Your task to perform on an android device: turn off improve location accuracy Image 0: 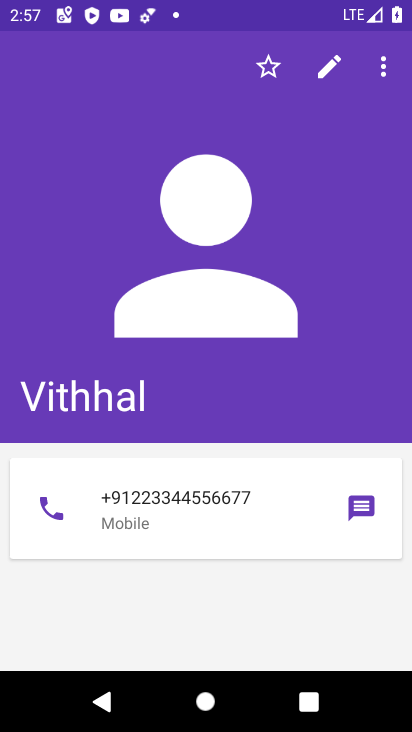
Step 0: press home button
Your task to perform on an android device: turn off improve location accuracy Image 1: 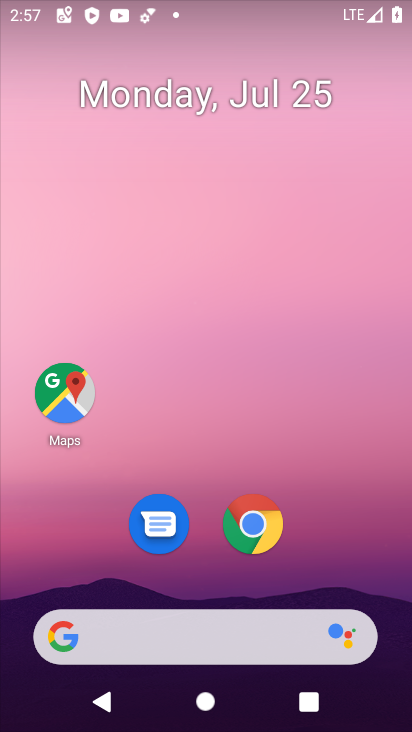
Step 1: drag from (341, 547) to (302, 54)
Your task to perform on an android device: turn off improve location accuracy Image 2: 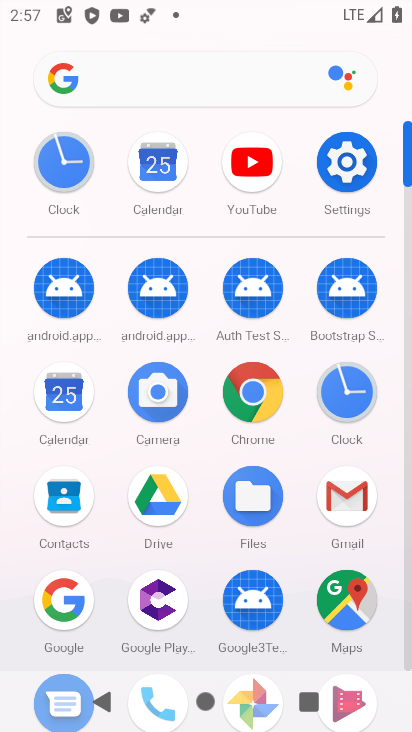
Step 2: click (343, 156)
Your task to perform on an android device: turn off improve location accuracy Image 3: 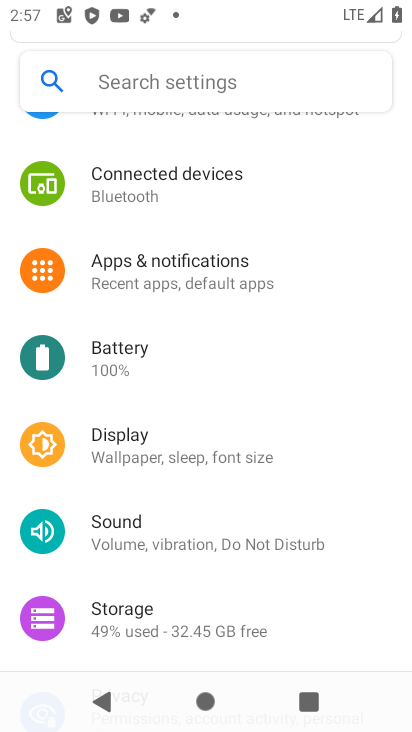
Step 3: drag from (235, 390) to (253, 34)
Your task to perform on an android device: turn off improve location accuracy Image 4: 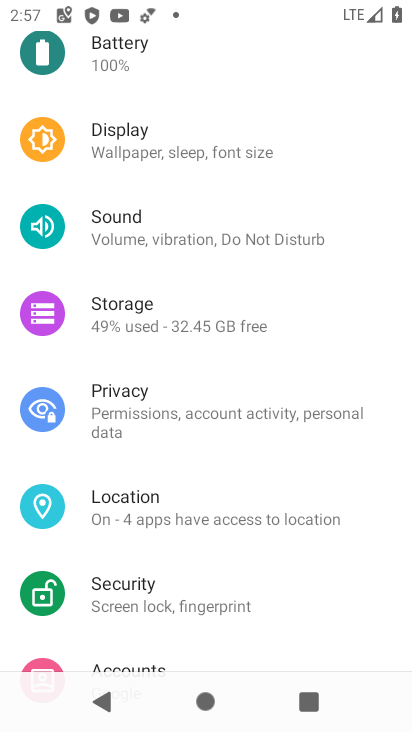
Step 4: click (206, 509)
Your task to perform on an android device: turn off improve location accuracy Image 5: 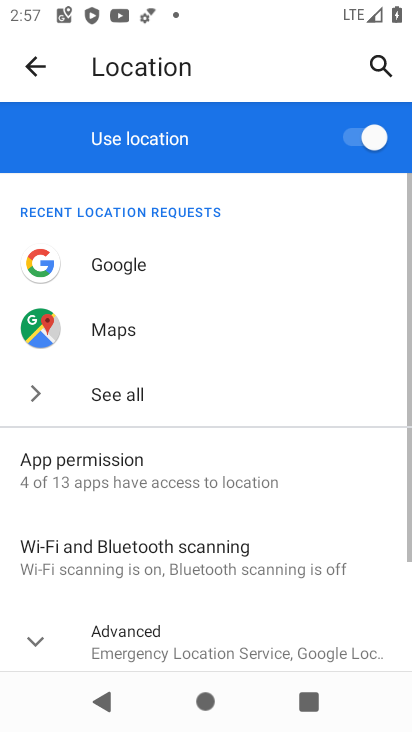
Step 5: click (31, 636)
Your task to perform on an android device: turn off improve location accuracy Image 6: 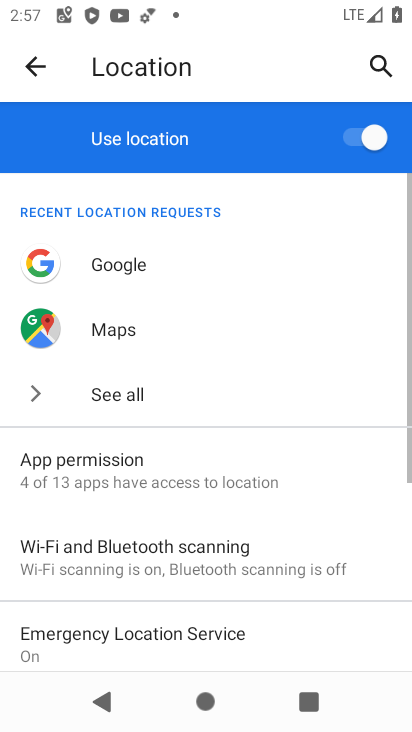
Step 6: drag from (218, 525) to (255, 242)
Your task to perform on an android device: turn off improve location accuracy Image 7: 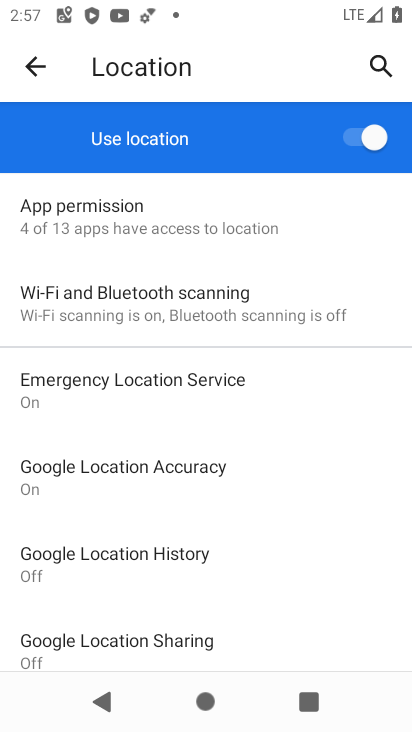
Step 7: click (109, 473)
Your task to perform on an android device: turn off improve location accuracy Image 8: 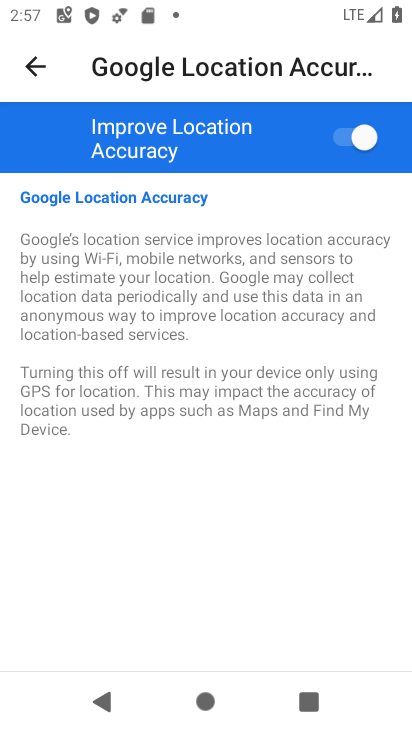
Step 8: click (351, 137)
Your task to perform on an android device: turn off improve location accuracy Image 9: 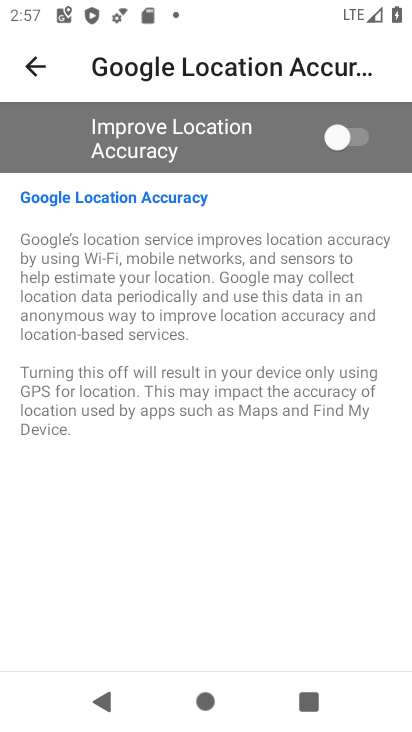
Step 9: task complete